Your task to perform on an android device: Go to Reddit.com Image 0: 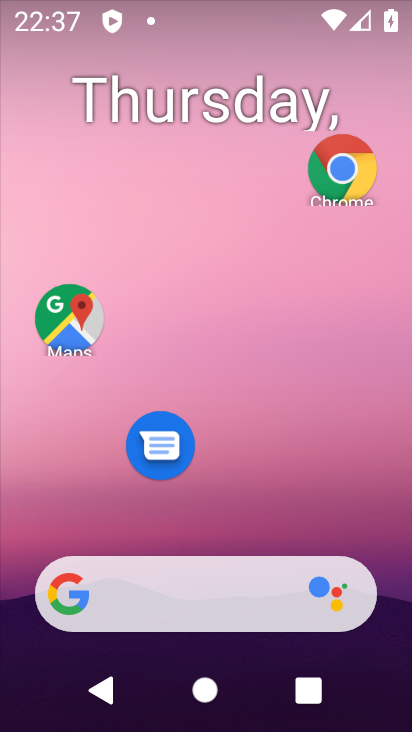
Step 0: click (208, 188)
Your task to perform on an android device: Go to Reddit.com Image 1: 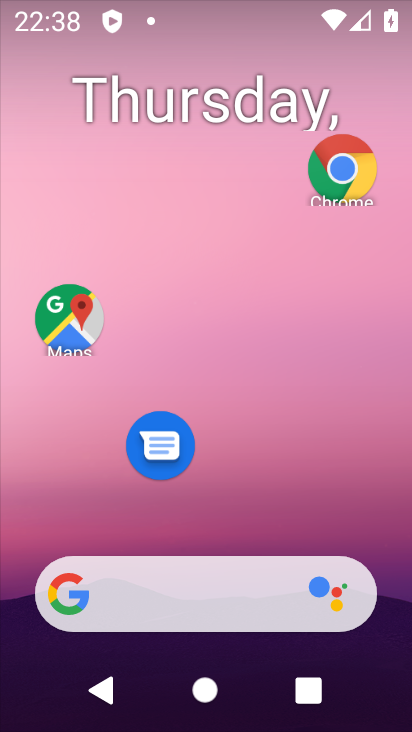
Step 1: click (326, 168)
Your task to perform on an android device: Go to Reddit.com Image 2: 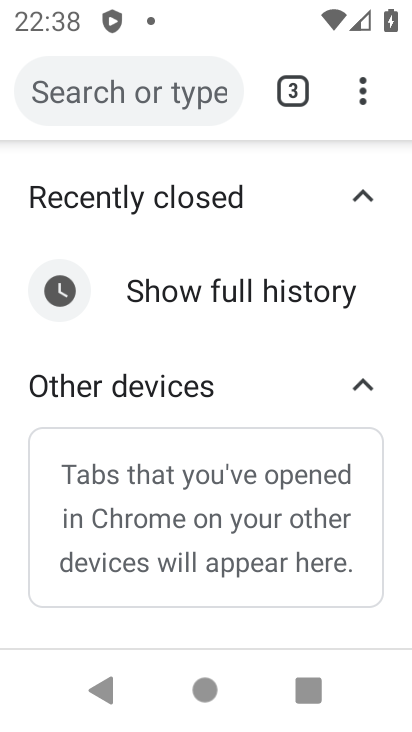
Step 2: click (179, 91)
Your task to perform on an android device: Go to Reddit.com Image 3: 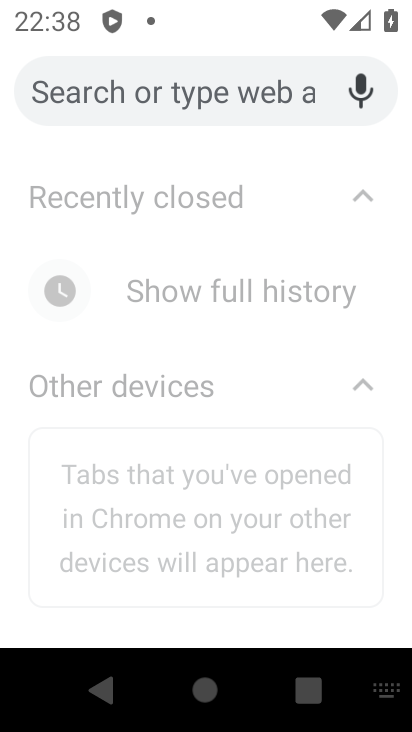
Step 3: click (146, 94)
Your task to perform on an android device: Go to Reddit.com Image 4: 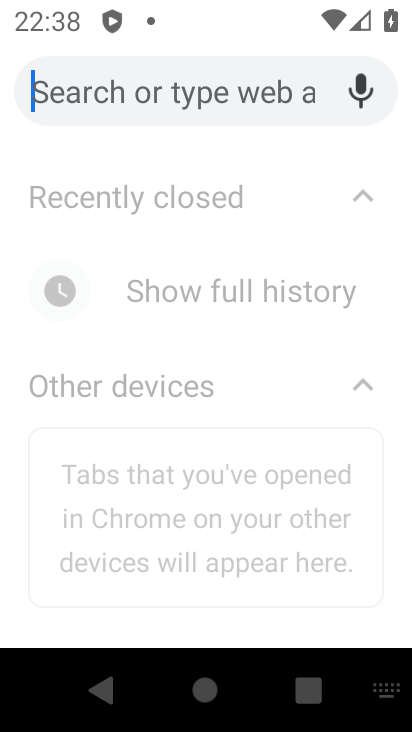
Step 4: type " Reddit.com"
Your task to perform on an android device: Go to Reddit.com Image 5: 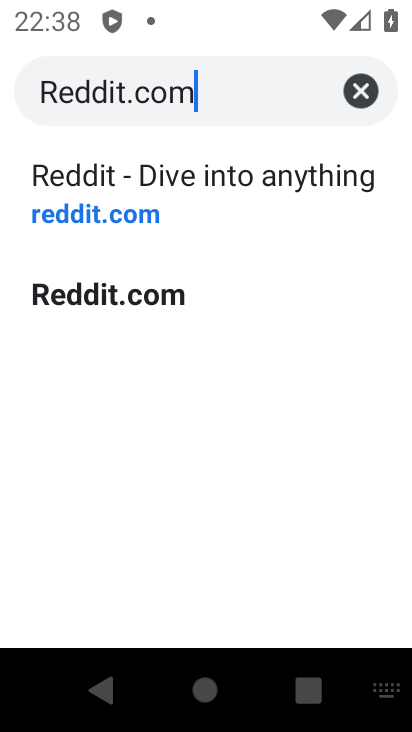
Step 5: type ""
Your task to perform on an android device: Go to Reddit.com Image 6: 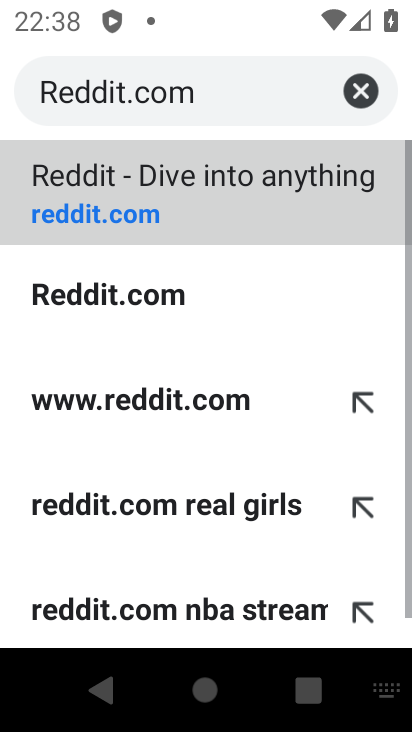
Step 6: click (154, 181)
Your task to perform on an android device: Go to Reddit.com Image 7: 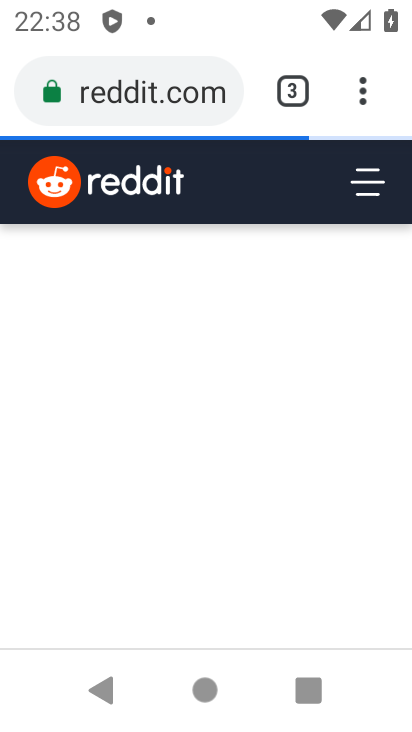
Step 7: task complete